Your task to perform on an android device: change text size in settings app Image 0: 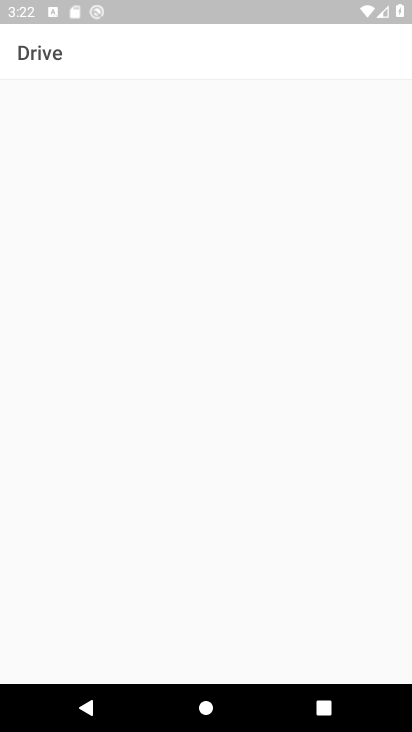
Step 0: press home button
Your task to perform on an android device: change text size in settings app Image 1: 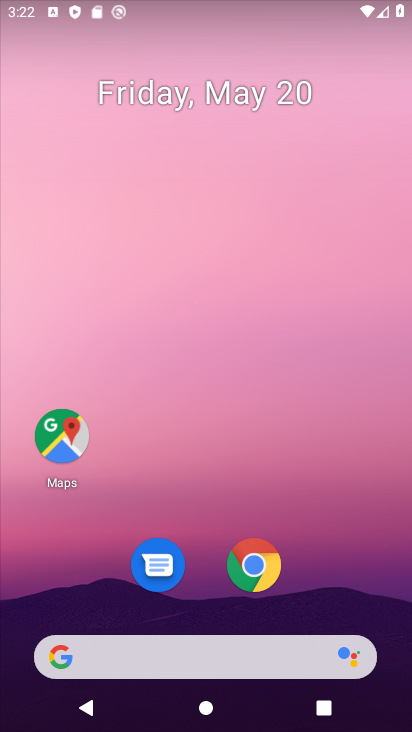
Step 1: drag from (374, 577) to (278, 78)
Your task to perform on an android device: change text size in settings app Image 2: 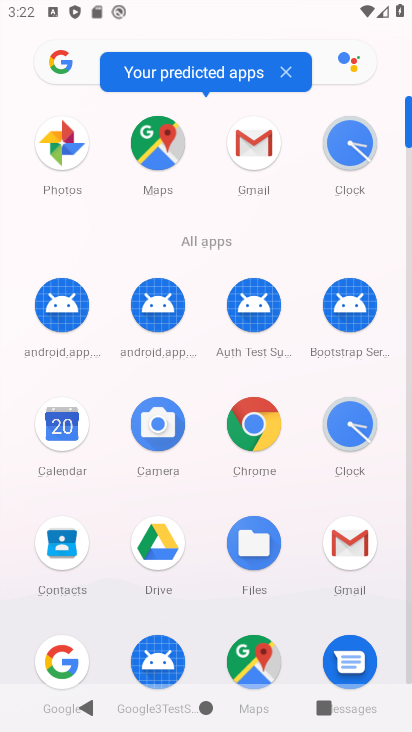
Step 2: drag from (383, 629) to (313, 158)
Your task to perform on an android device: change text size in settings app Image 3: 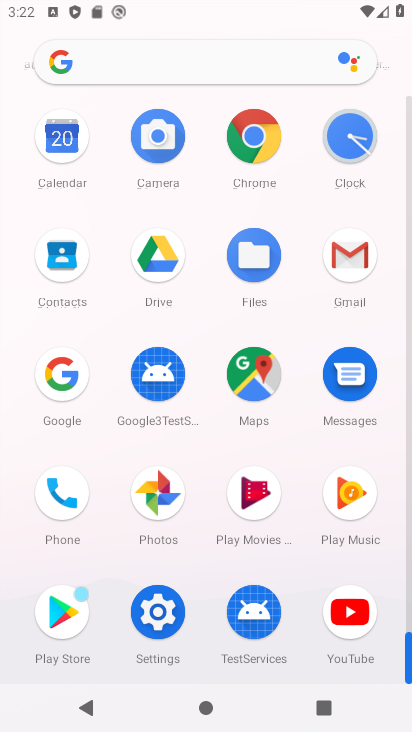
Step 3: click (163, 620)
Your task to perform on an android device: change text size in settings app Image 4: 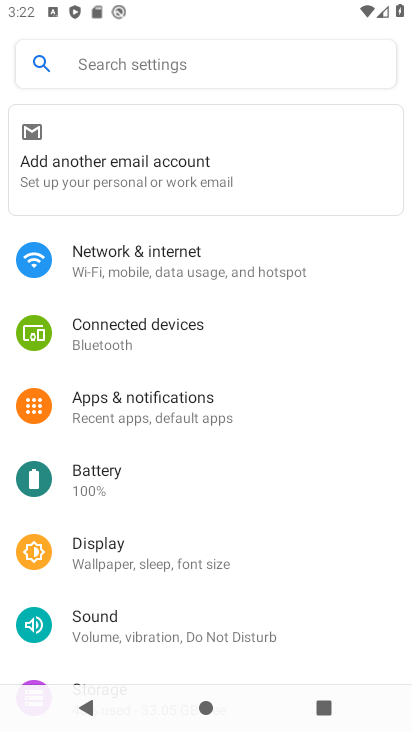
Step 4: click (188, 568)
Your task to perform on an android device: change text size in settings app Image 5: 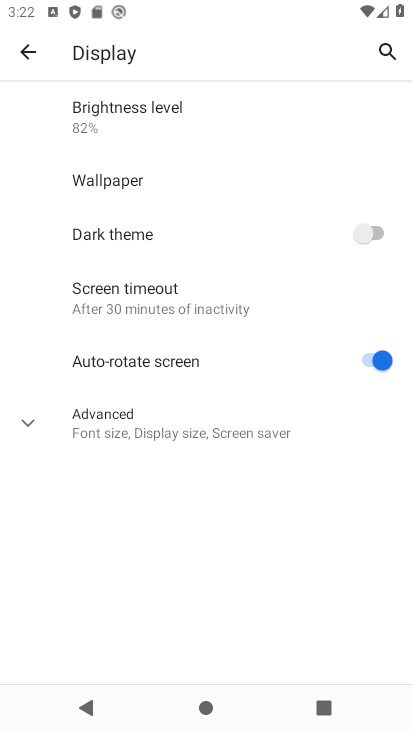
Step 5: click (126, 446)
Your task to perform on an android device: change text size in settings app Image 6: 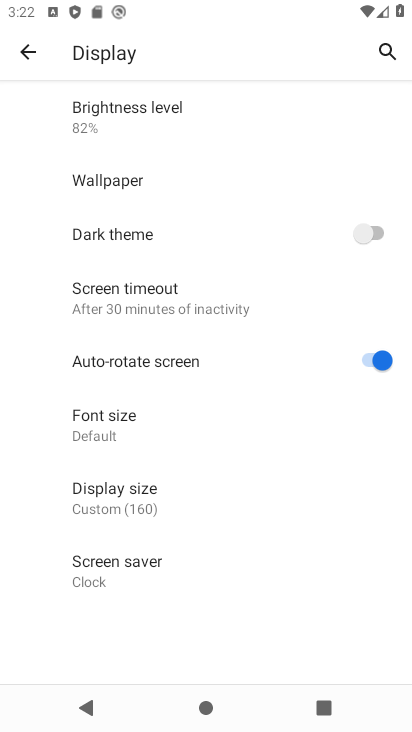
Step 6: click (125, 422)
Your task to perform on an android device: change text size in settings app Image 7: 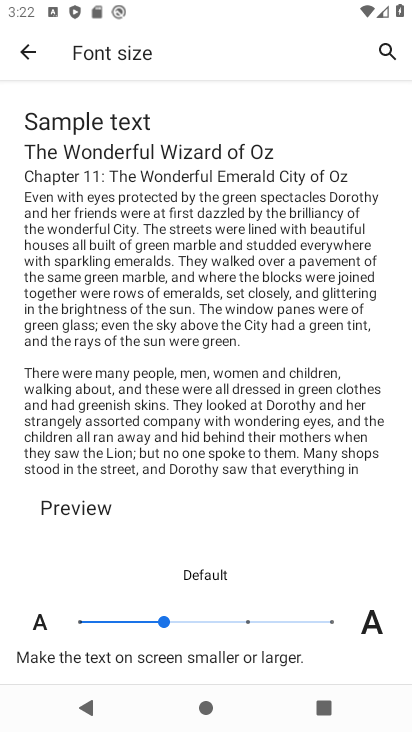
Step 7: click (187, 629)
Your task to perform on an android device: change text size in settings app Image 8: 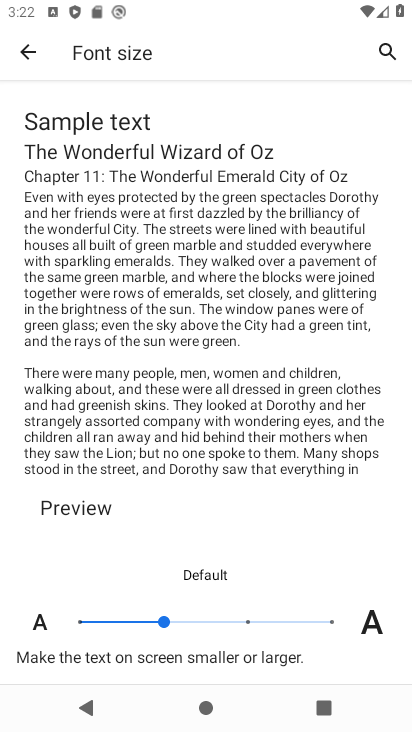
Step 8: click (187, 622)
Your task to perform on an android device: change text size in settings app Image 9: 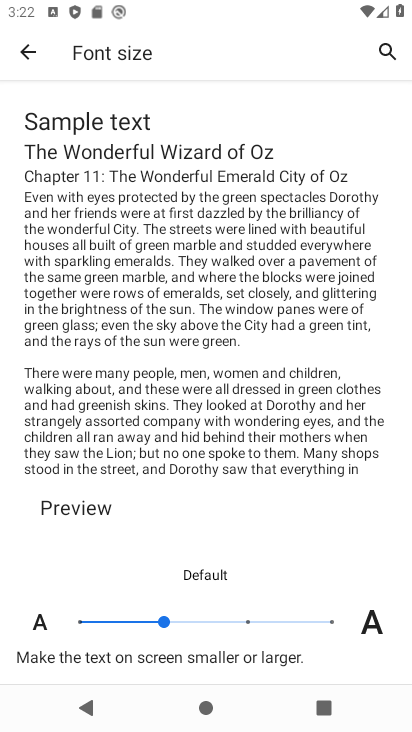
Step 9: drag from (159, 624) to (205, 620)
Your task to perform on an android device: change text size in settings app Image 10: 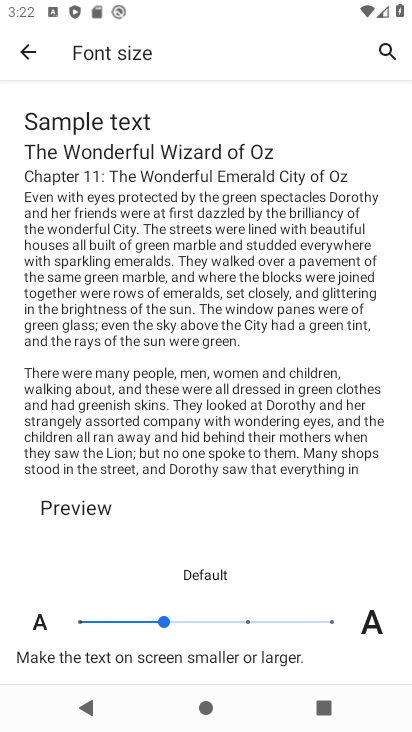
Step 10: click (204, 619)
Your task to perform on an android device: change text size in settings app Image 11: 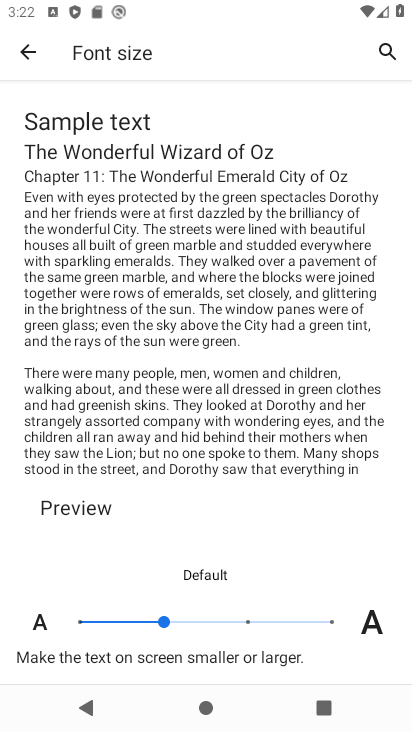
Step 11: click (164, 620)
Your task to perform on an android device: change text size in settings app Image 12: 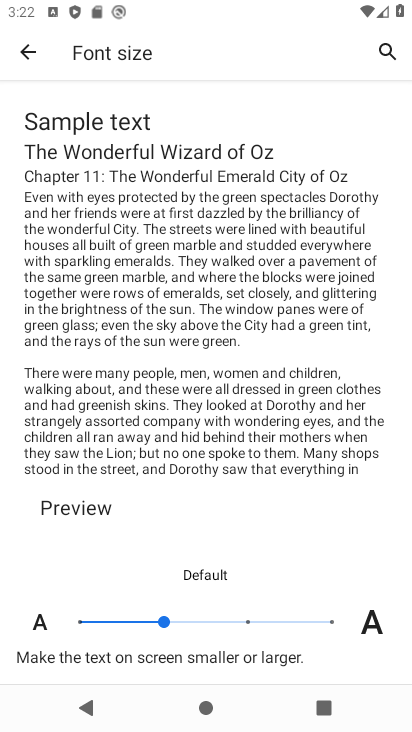
Step 12: click (220, 623)
Your task to perform on an android device: change text size in settings app Image 13: 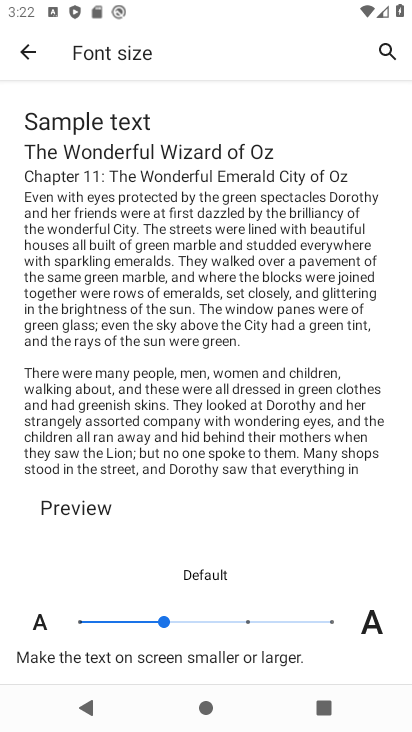
Step 13: click (220, 623)
Your task to perform on an android device: change text size in settings app Image 14: 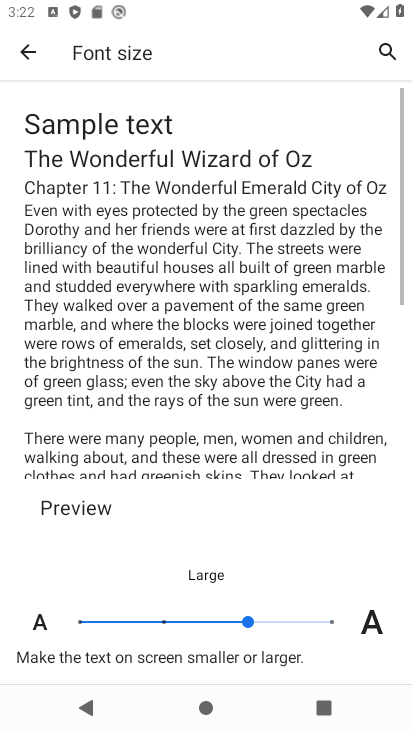
Step 14: click (220, 622)
Your task to perform on an android device: change text size in settings app Image 15: 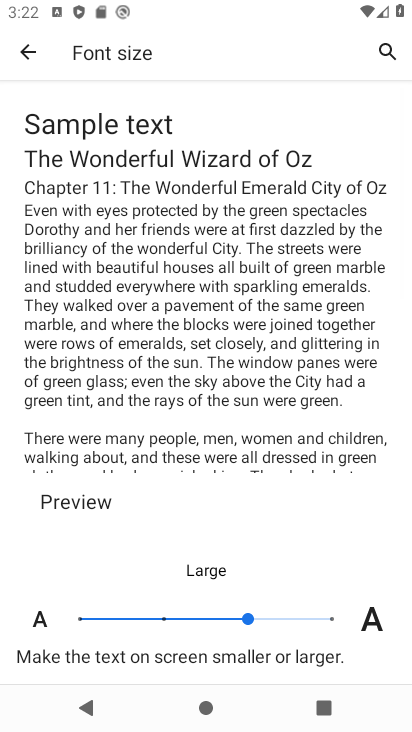
Step 15: task complete